Your task to perform on an android device: Go to Yahoo.com Image 0: 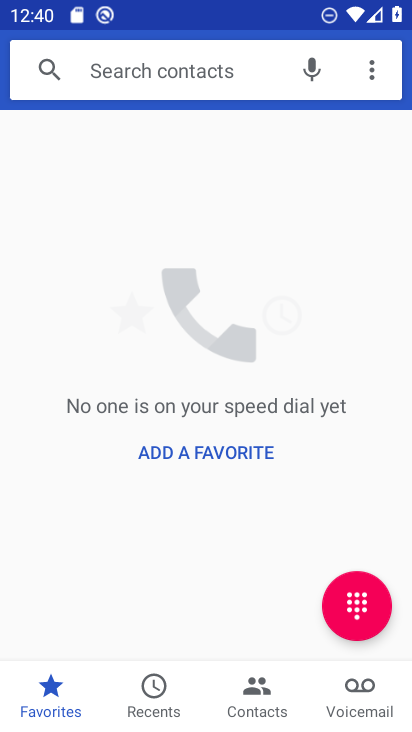
Step 0: press home button
Your task to perform on an android device: Go to Yahoo.com Image 1: 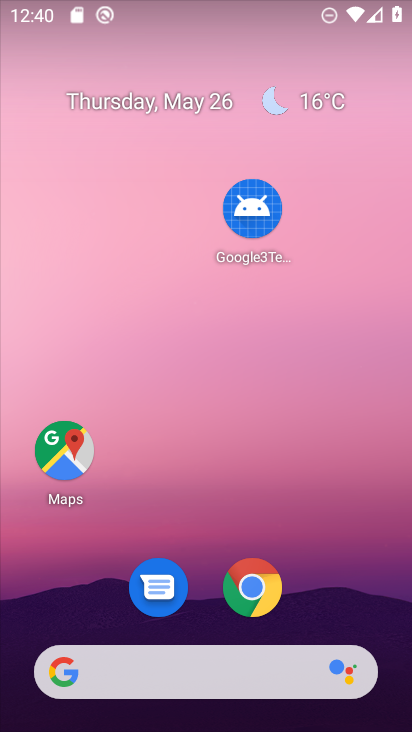
Step 1: click (241, 598)
Your task to perform on an android device: Go to Yahoo.com Image 2: 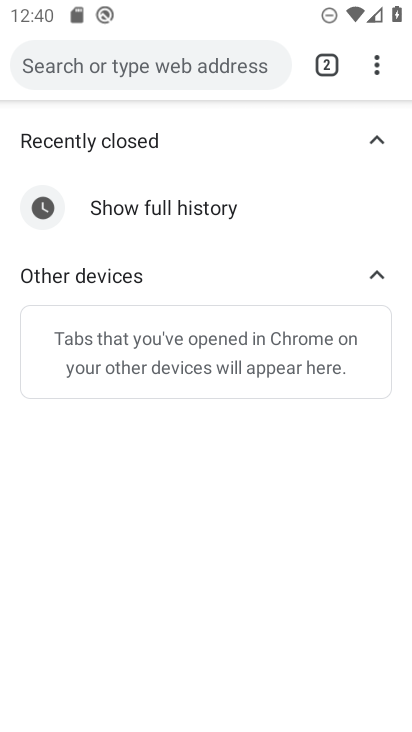
Step 2: click (225, 61)
Your task to perform on an android device: Go to Yahoo.com Image 3: 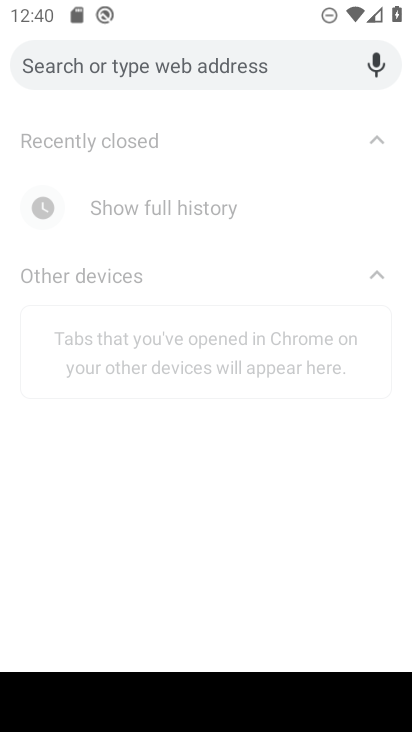
Step 3: type "yahoo.com"
Your task to perform on an android device: Go to Yahoo.com Image 4: 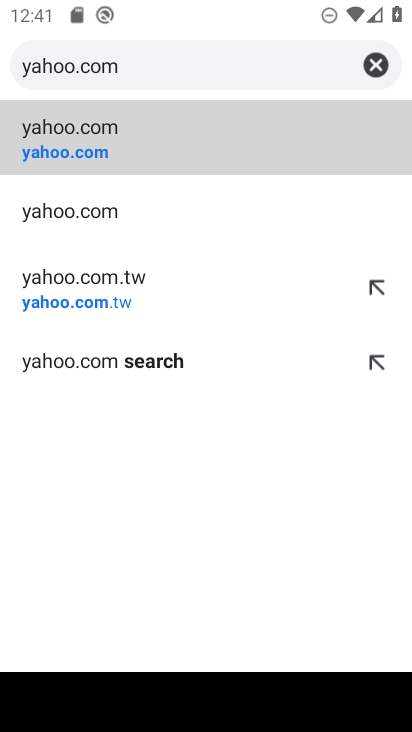
Step 4: click (81, 154)
Your task to perform on an android device: Go to Yahoo.com Image 5: 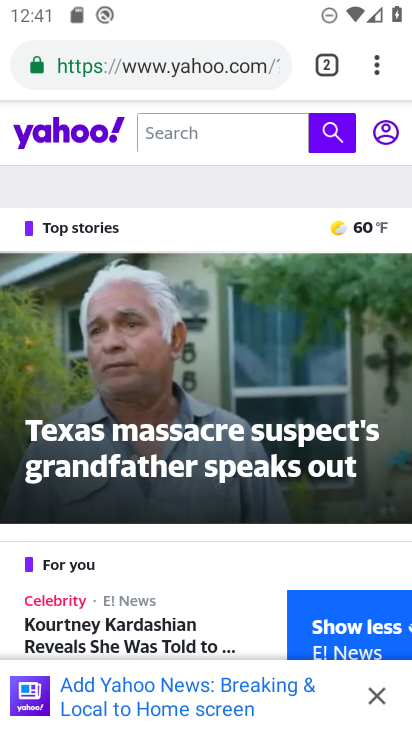
Step 5: task complete